Your task to perform on an android device: Go to battery settings Image 0: 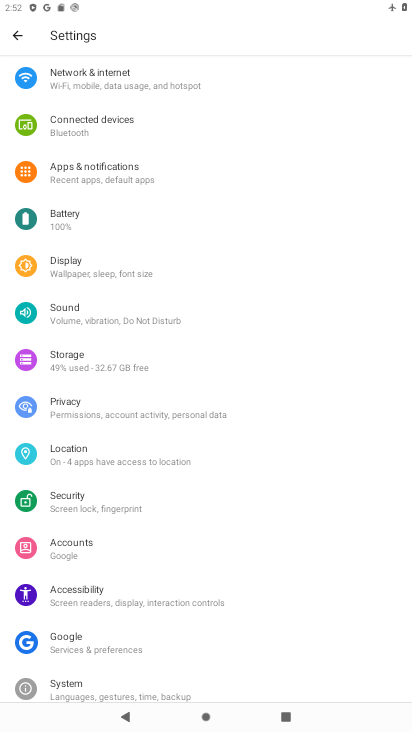
Step 0: click (73, 222)
Your task to perform on an android device: Go to battery settings Image 1: 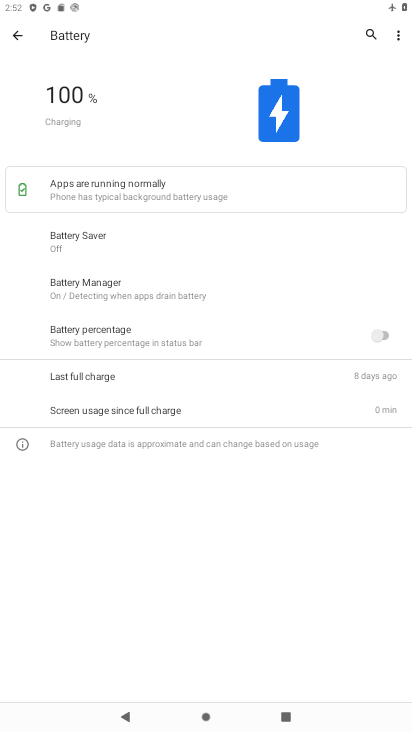
Step 1: task complete